Your task to perform on an android device: Go to ESPN.com Image 0: 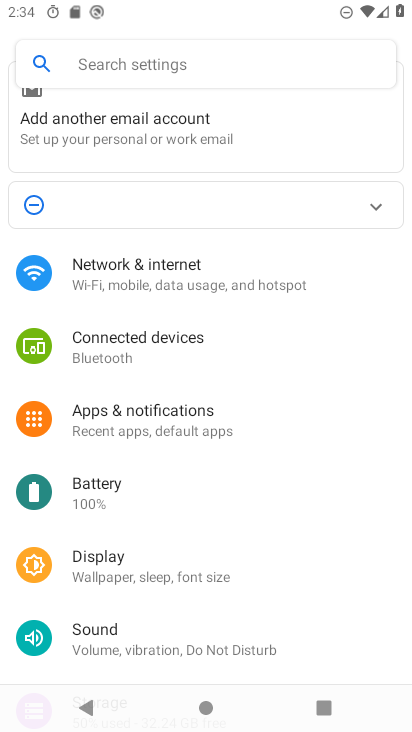
Step 0: press home button
Your task to perform on an android device: Go to ESPN.com Image 1: 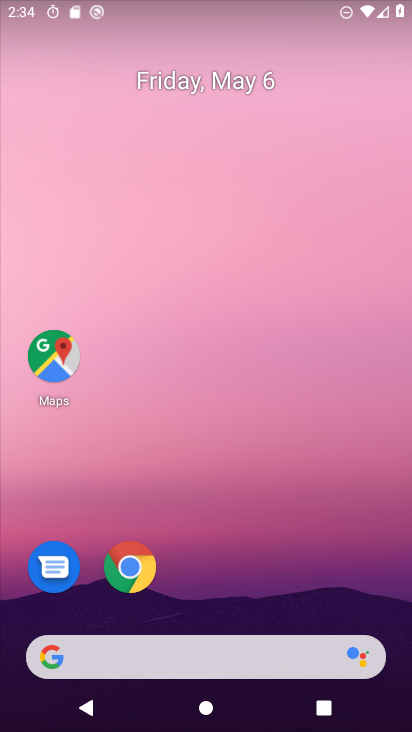
Step 1: drag from (286, 675) to (272, 217)
Your task to perform on an android device: Go to ESPN.com Image 2: 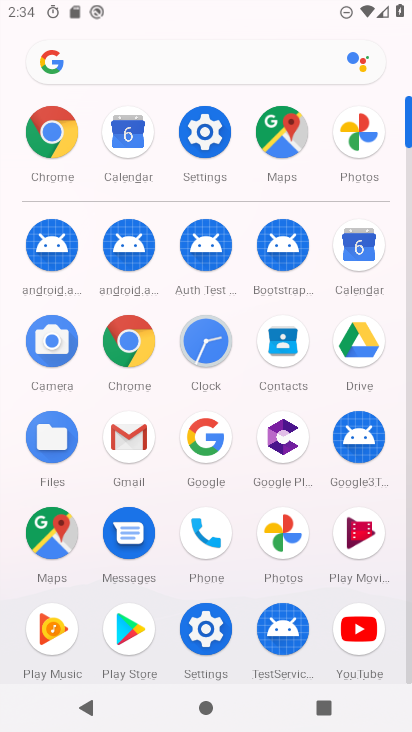
Step 2: click (62, 123)
Your task to perform on an android device: Go to ESPN.com Image 3: 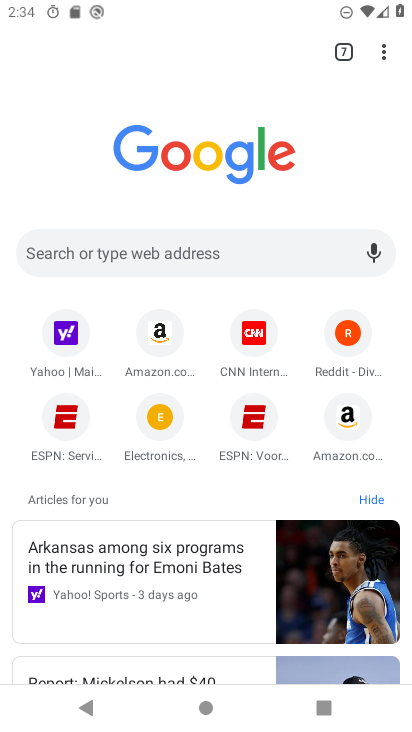
Step 3: click (78, 406)
Your task to perform on an android device: Go to ESPN.com Image 4: 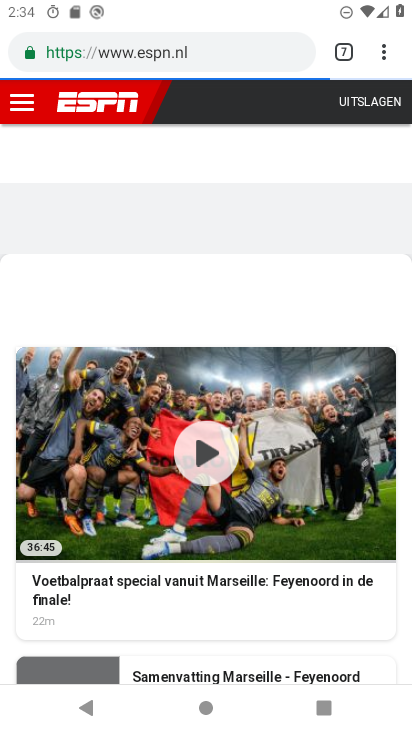
Step 4: task complete